Your task to perform on an android device: make emails show in primary in the gmail app Image 0: 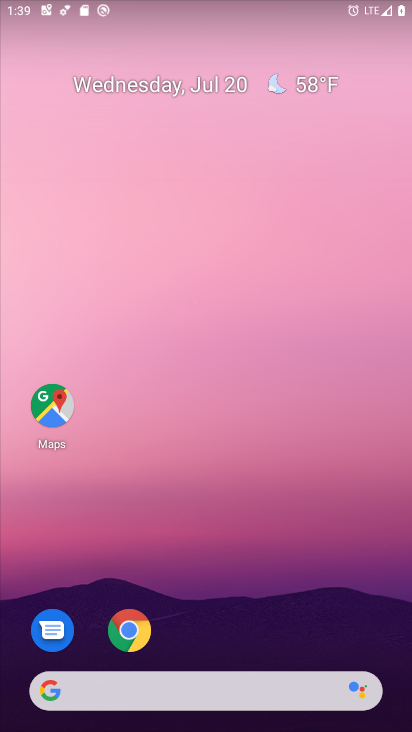
Step 0: drag from (232, 641) to (308, 138)
Your task to perform on an android device: make emails show in primary in the gmail app Image 1: 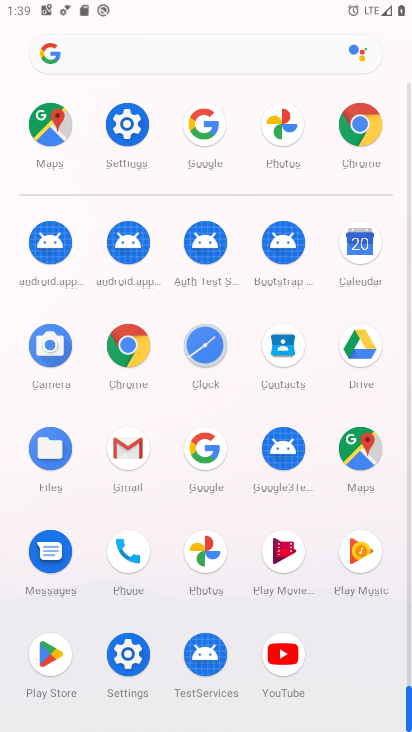
Step 1: click (125, 470)
Your task to perform on an android device: make emails show in primary in the gmail app Image 2: 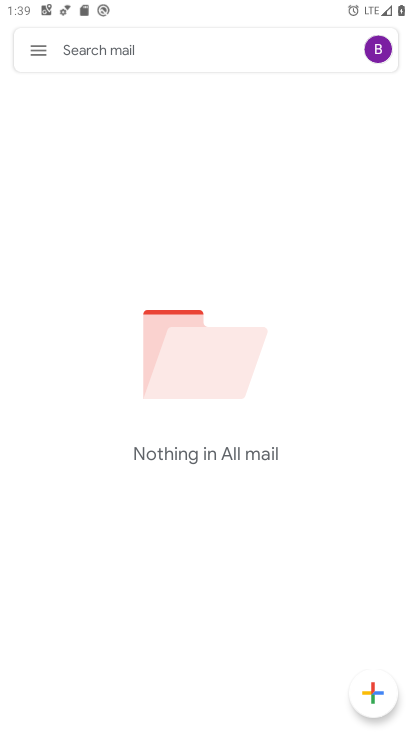
Step 2: click (33, 51)
Your task to perform on an android device: make emails show in primary in the gmail app Image 3: 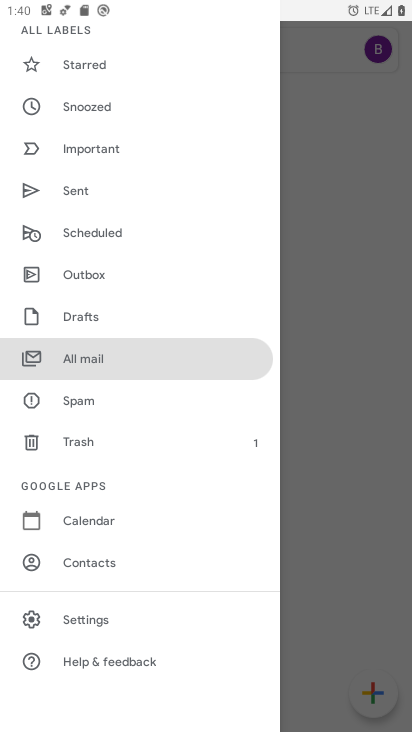
Step 3: task complete